Your task to perform on an android device: Play the last video I watched on Youtube Image 0: 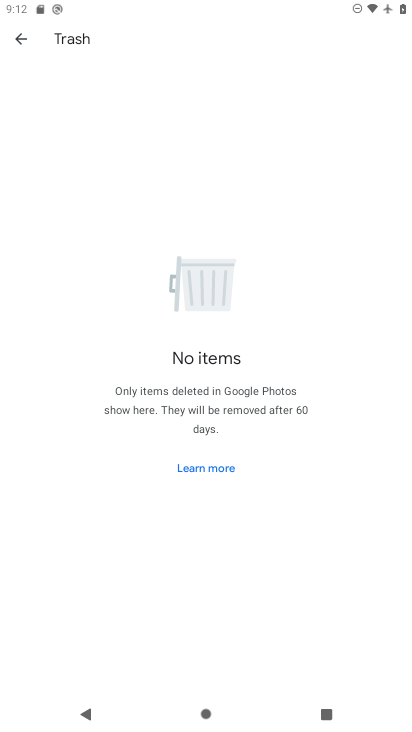
Step 0: press home button
Your task to perform on an android device: Play the last video I watched on Youtube Image 1: 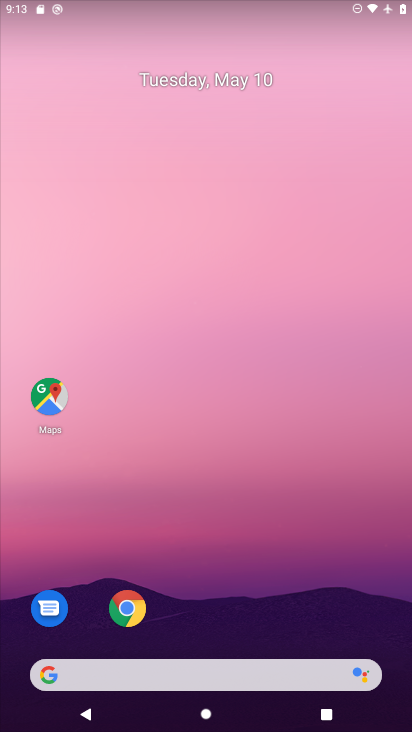
Step 1: drag from (235, 518) to (245, 246)
Your task to perform on an android device: Play the last video I watched on Youtube Image 2: 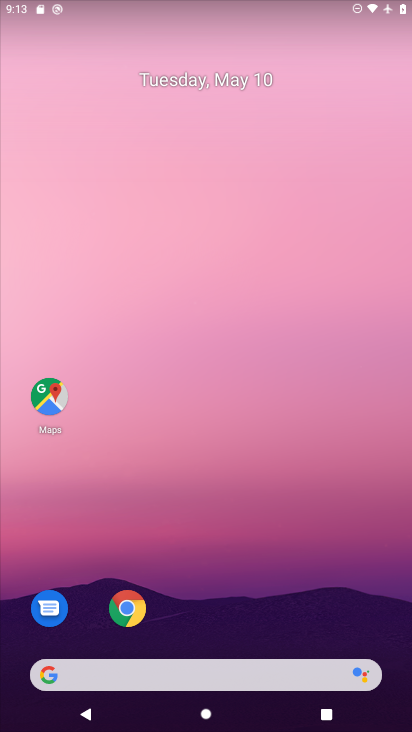
Step 2: drag from (247, 630) to (233, 238)
Your task to perform on an android device: Play the last video I watched on Youtube Image 3: 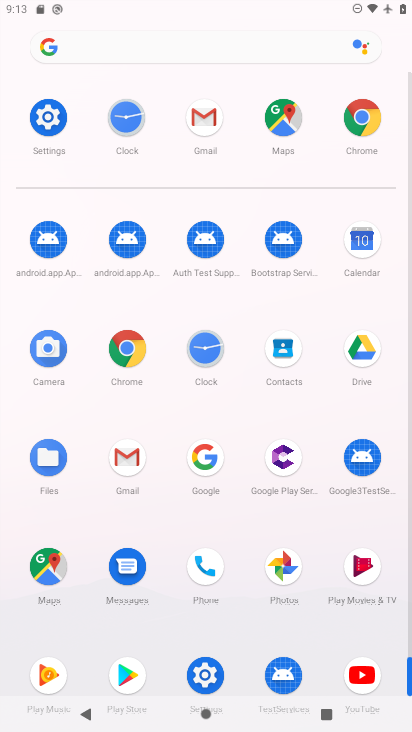
Step 3: click (356, 676)
Your task to perform on an android device: Play the last video I watched on Youtube Image 4: 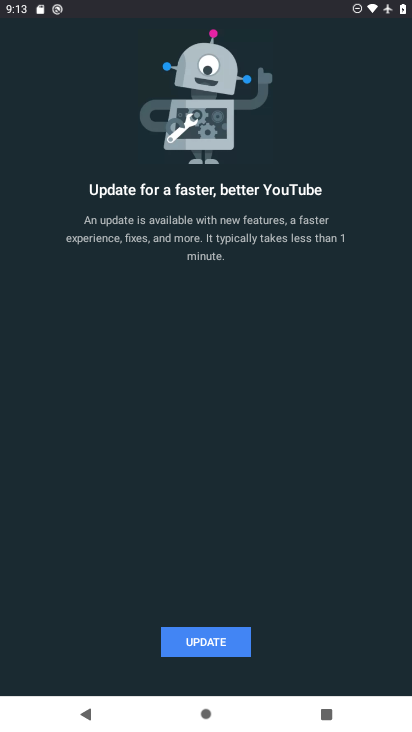
Step 4: click (201, 636)
Your task to perform on an android device: Play the last video I watched on Youtube Image 5: 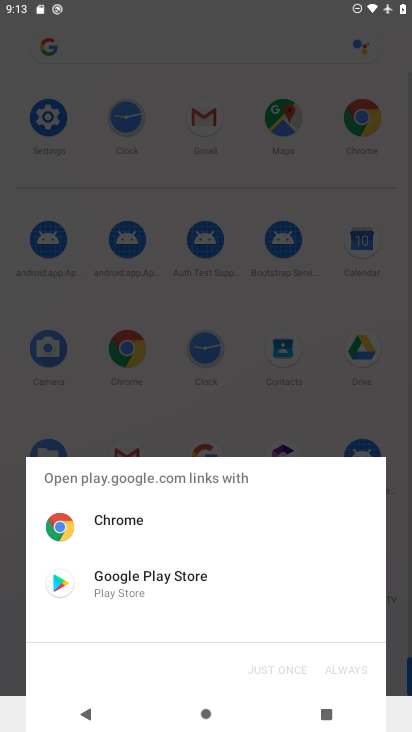
Step 5: press back button
Your task to perform on an android device: Play the last video I watched on Youtube Image 6: 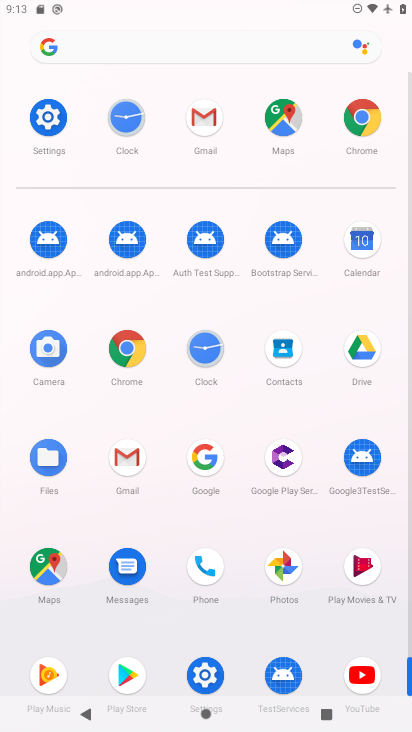
Step 6: click (353, 684)
Your task to perform on an android device: Play the last video I watched on Youtube Image 7: 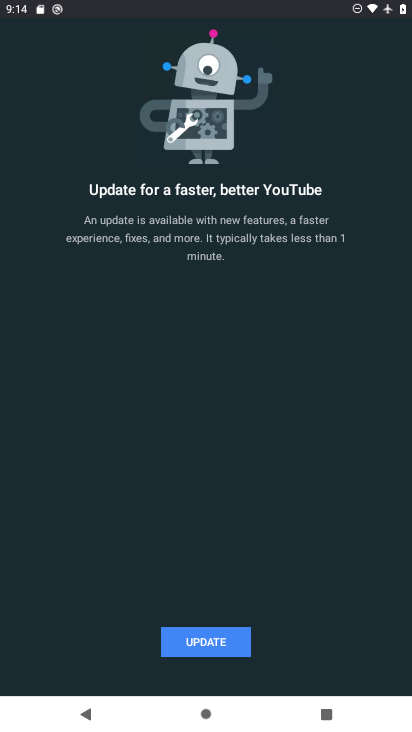
Step 7: task complete